Your task to perform on an android device: delete browsing data in the chrome app Image 0: 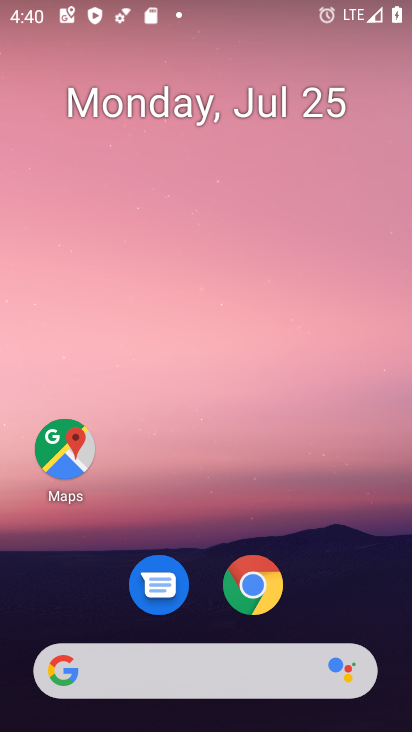
Step 0: click (267, 592)
Your task to perform on an android device: delete browsing data in the chrome app Image 1: 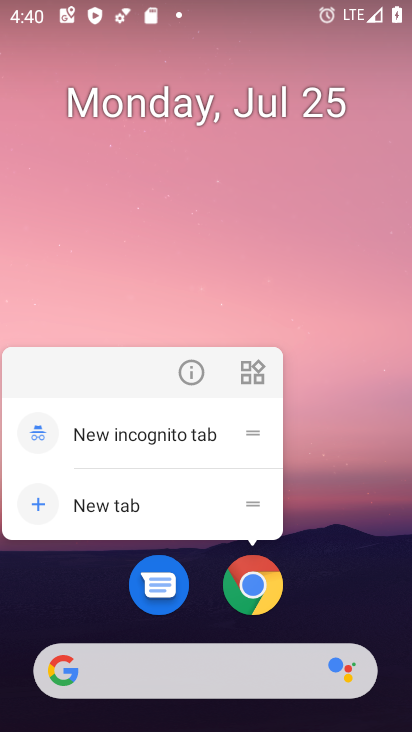
Step 1: click (264, 583)
Your task to perform on an android device: delete browsing data in the chrome app Image 2: 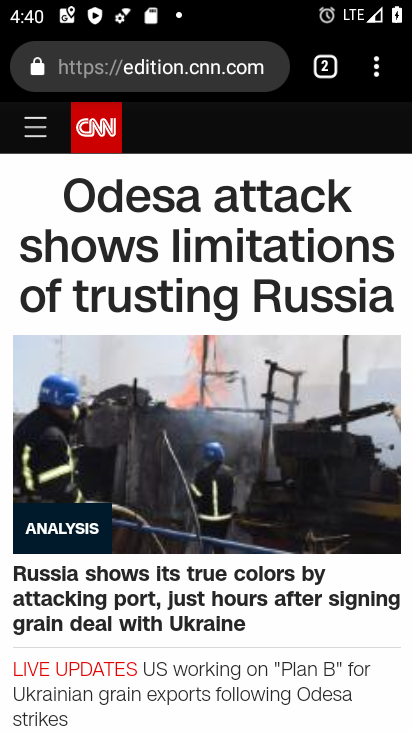
Step 2: click (377, 78)
Your task to perform on an android device: delete browsing data in the chrome app Image 3: 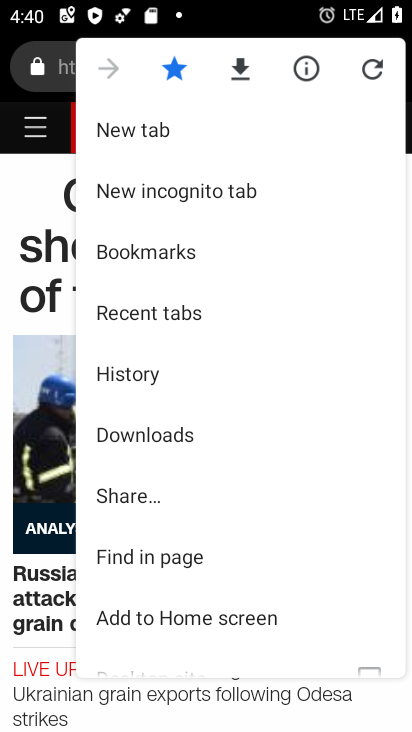
Step 3: click (155, 369)
Your task to perform on an android device: delete browsing data in the chrome app Image 4: 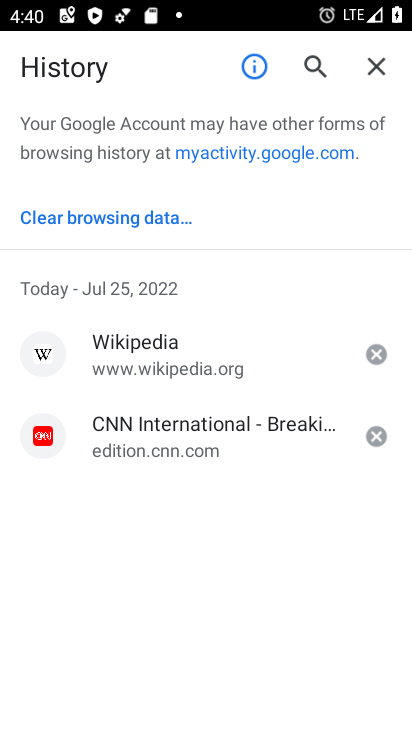
Step 4: click (132, 213)
Your task to perform on an android device: delete browsing data in the chrome app Image 5: 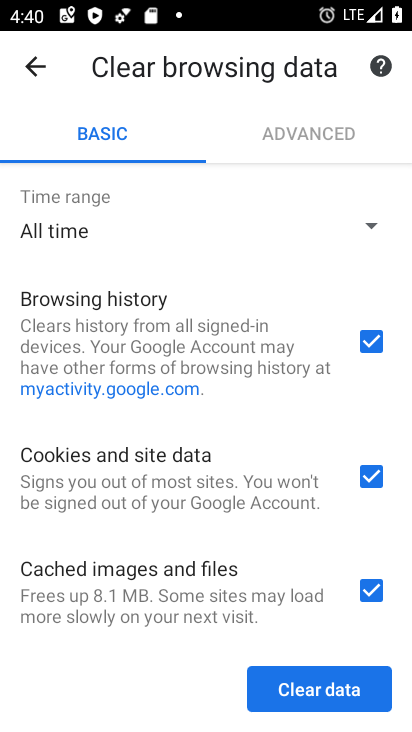
Step 5: click (325, 688)
Your task to perform on an android device: delete browsing data in the chrome app Image 6: 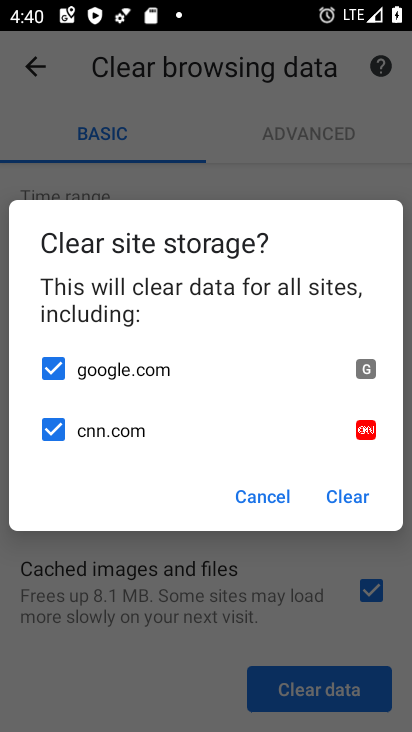
Step 6: click (354, 490)
Your task to perform on an android device: delete browsing data in the chrome app Image 7: 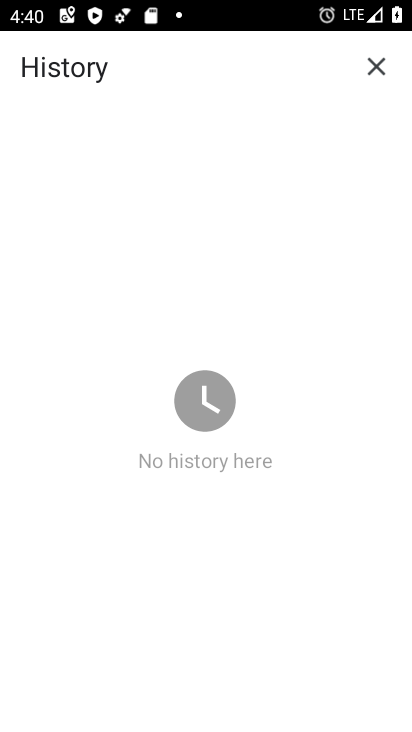
Step 7: task complete